Your task to perform on an android device: set the stopwatch Image 0: 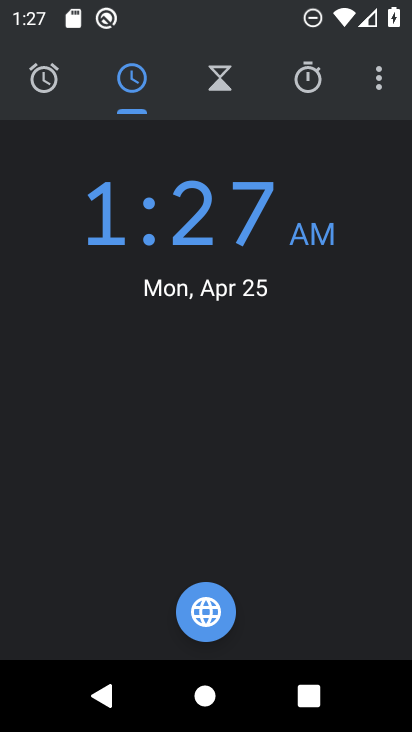
Step 0: click (307, 74)
Your task to perform on an android device: set the stopwatch Image 1: 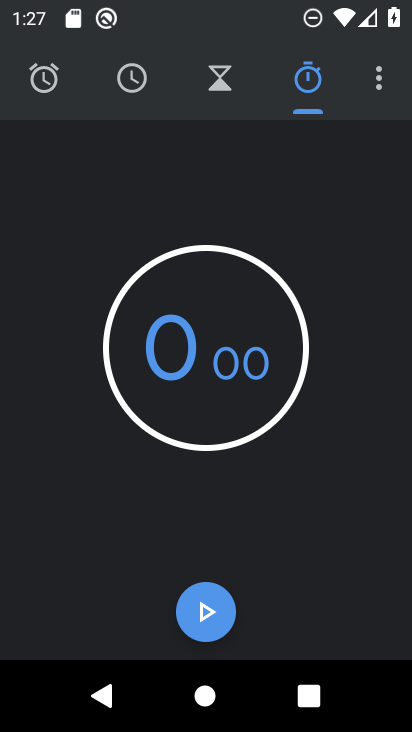
Step 1: click (214, 609)
Your task to perform on an android device: set the stopwatch Image 2: 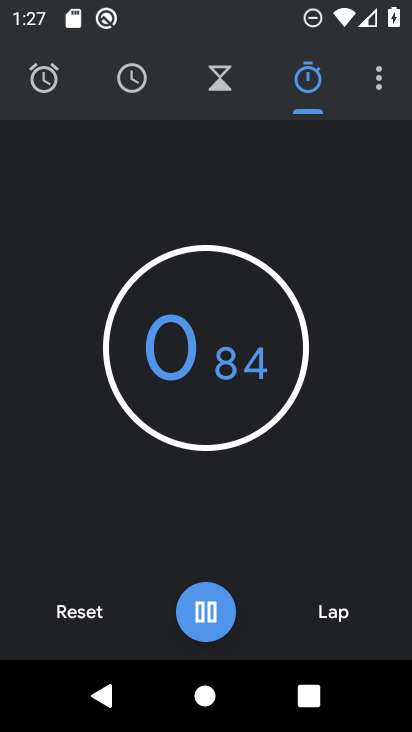
Step 2: task complete